Your task to perform on an android device: Turn off the flashlight Image 0: 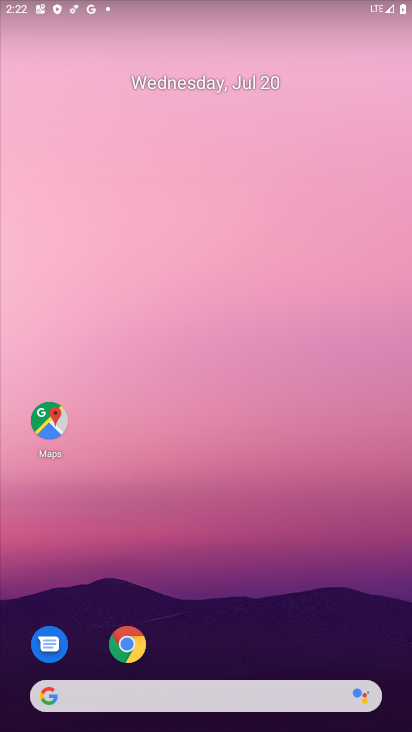
Step 0: press home button
Your task to perform on an android device: Turn off the flashlight Image 1: 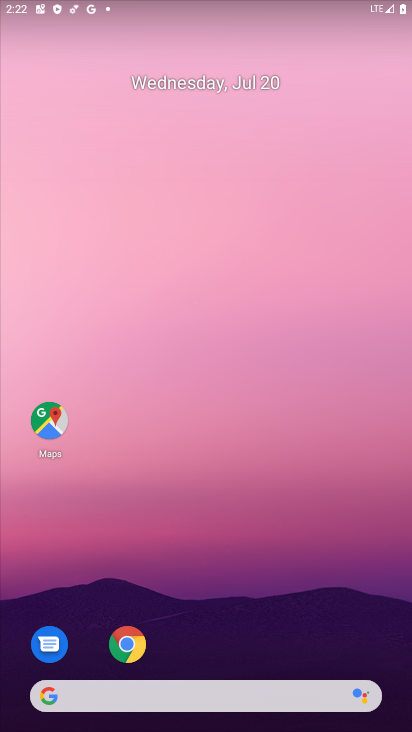
Step 1: drag from (196, 686) to (228, 246)
Your task to perform on an android device: Turn off the flashlight Image 2: 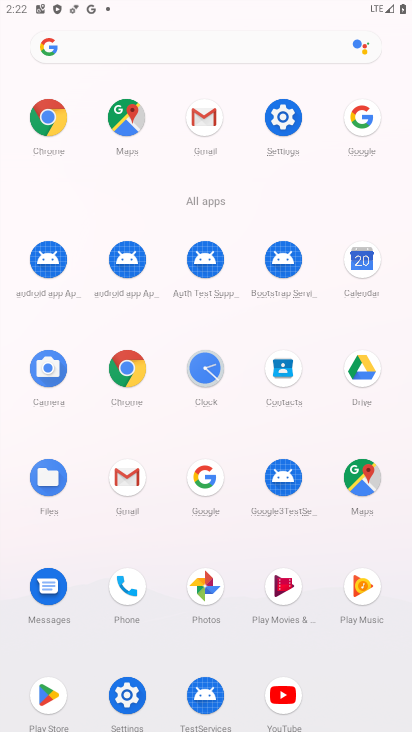
Step 2: click (124, 692)
Your task to perform on an android device: Turn off the flashlight Image 3: 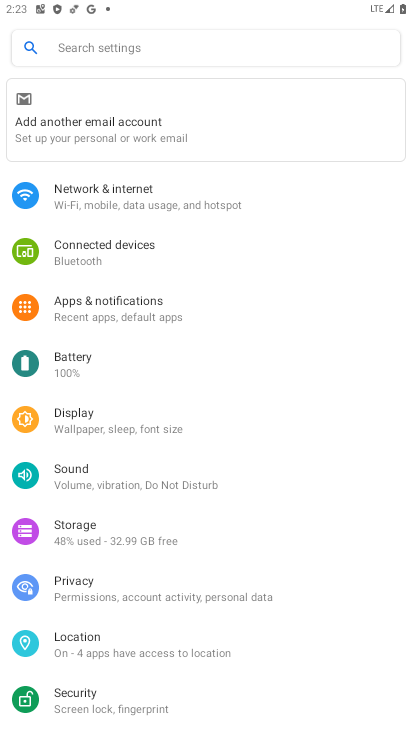
Step 3: click (162, 209)
Your task to perform on an android device: Turn off the flashlight Image 4: 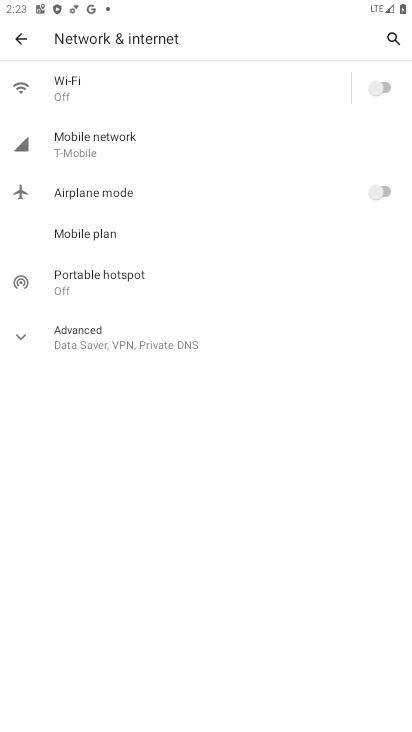
Step 4: press back button
Your task to perform on an android device: Turn off the flashlight Image 5: 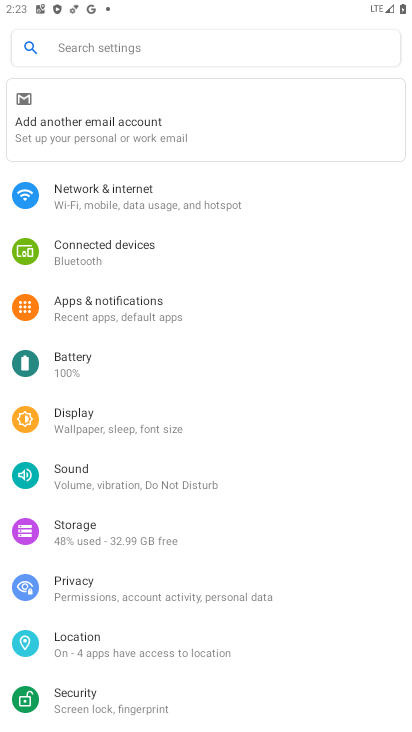
Step 5: click (123, 426)
Your task to perform on an android device: Turn off the flashlight Image 6: 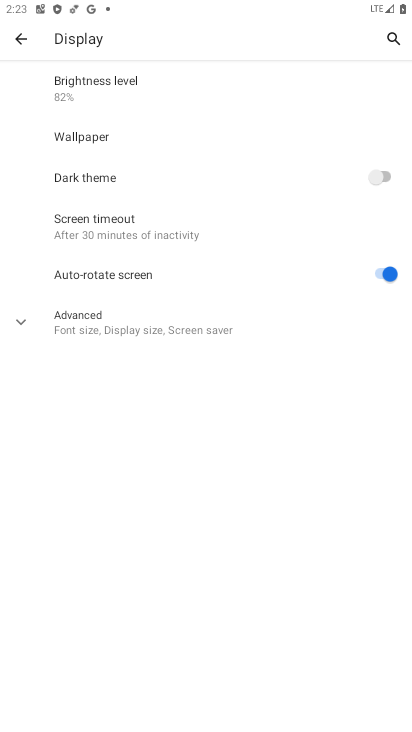
Step 6: click (199, 332)
Your task to perform on an android device: Turn off the flashlight Image 7: 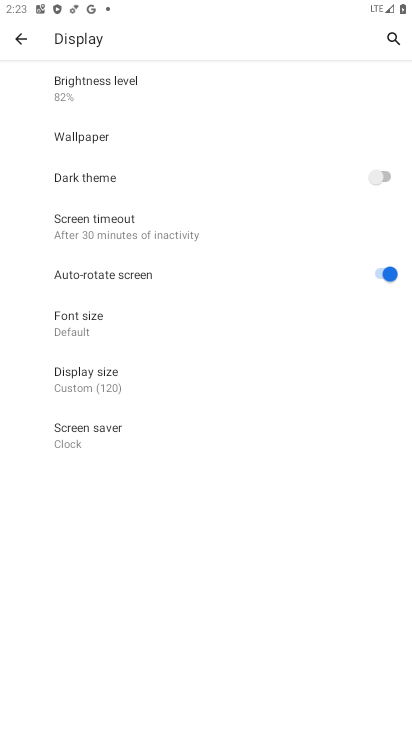
Step 7: task complete